Your task to perform on an android device: Go to Google maps Image 0: 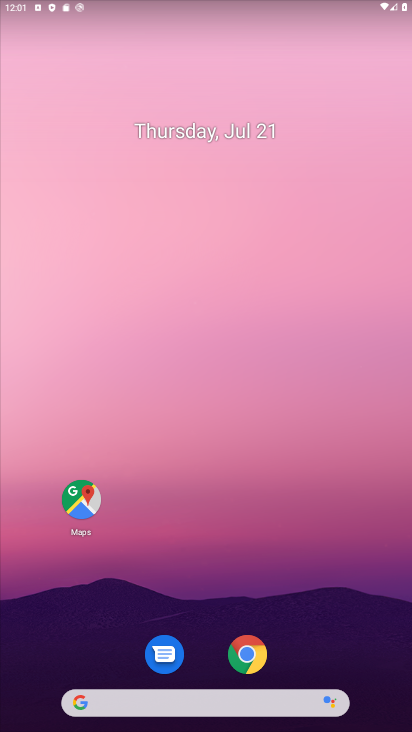
Step 0: click (100, 516)
Your task to perform on an android device: Go to Google maps Image 1: 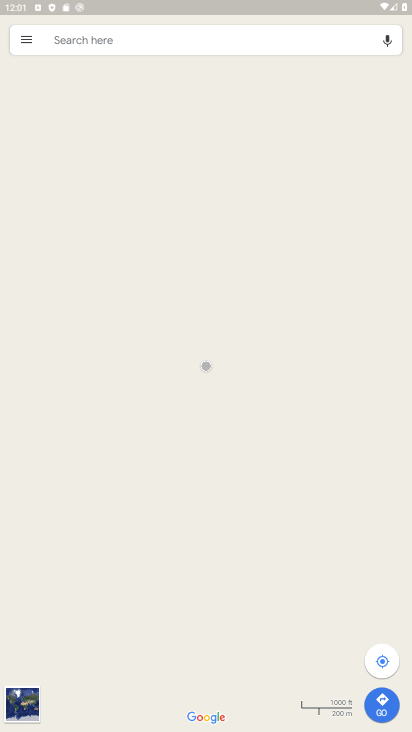
Step 1: task complete